Your task to perform on an android device: Open notification settings Image 0: 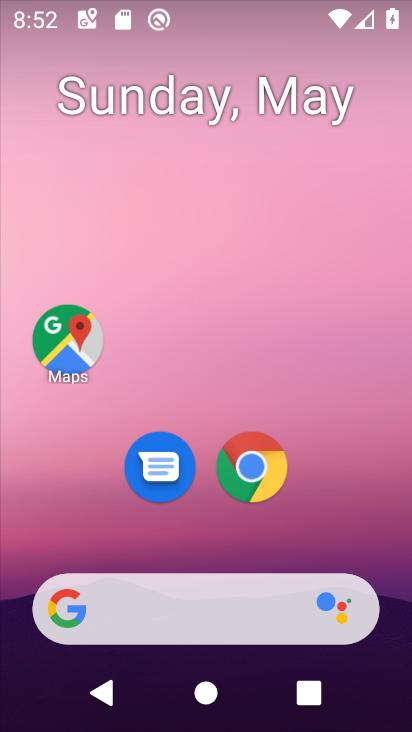
Step 0: drag from (345, 528) to (314, 117)
Your task to perform on an android device: Open notification settings Image 1: 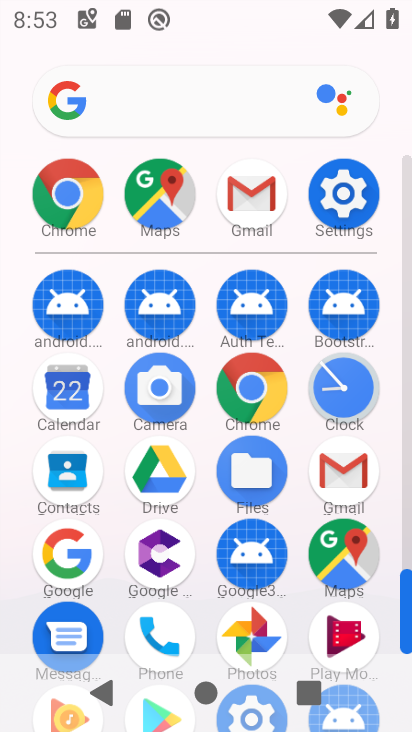
Step 1: click (335, 198)
Your task to perform on an android device: Open notification settings Image 2: 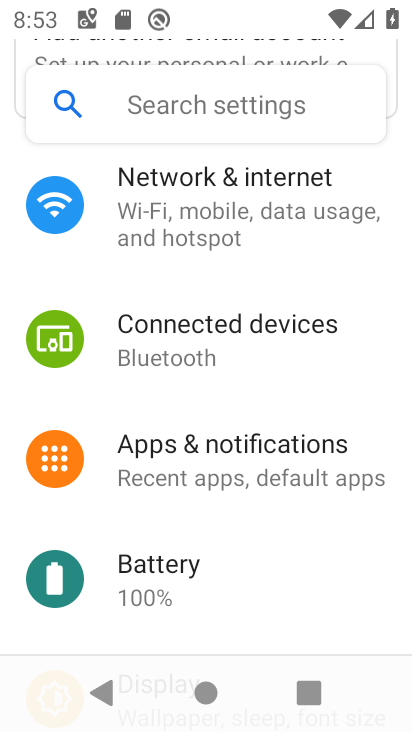
Step 2: click (280, 448)
Your task to perform on an android device: Open notification settings Image 3: 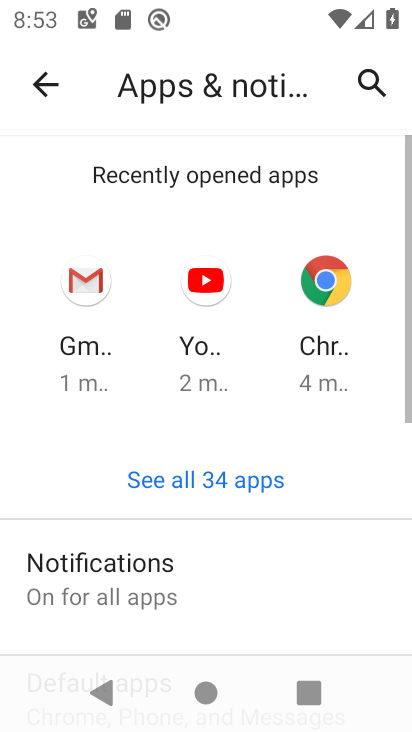
Step 3: click (150, 564)
Your task to perform on an android device: Open notification settings Image 4: 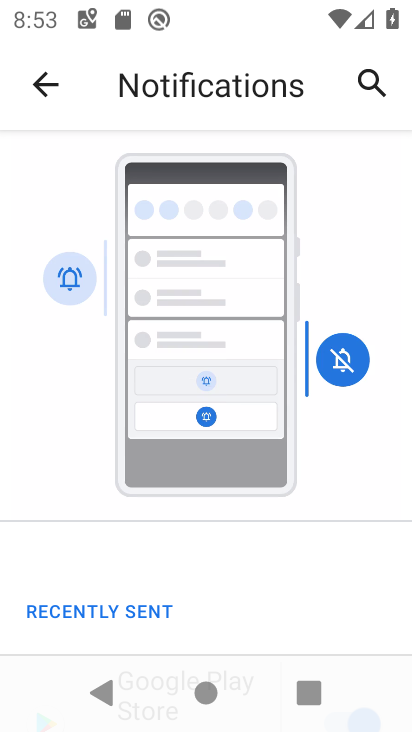
Step 4: drag from (256, 588) to (319, 200)
Your task to perform on an android device: Open notification settings Image 5: 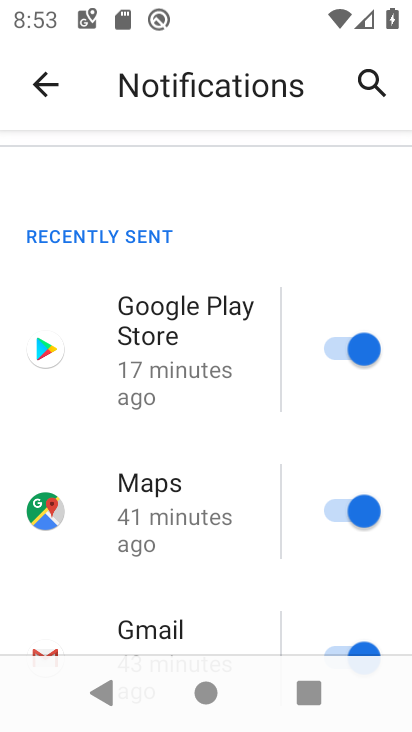
Step 5: drag from (235, 589) to (274, 228)
Your task to perform on an android device: Open notification settings Image 6: 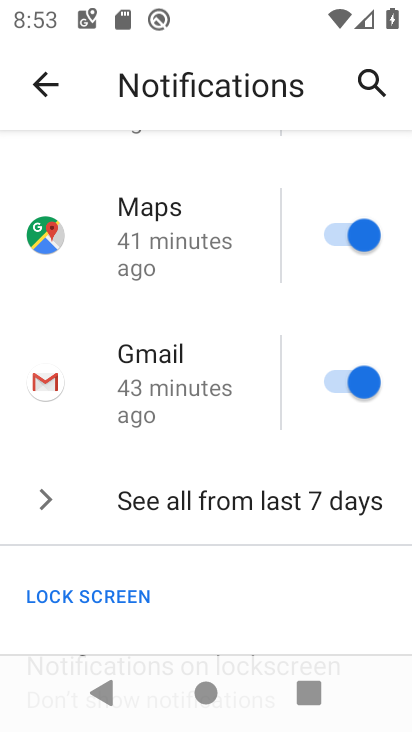
Step 6: drag from (256, 618) to (233, 373)
Your task to perform on an android device: Open notification settings Image 7: 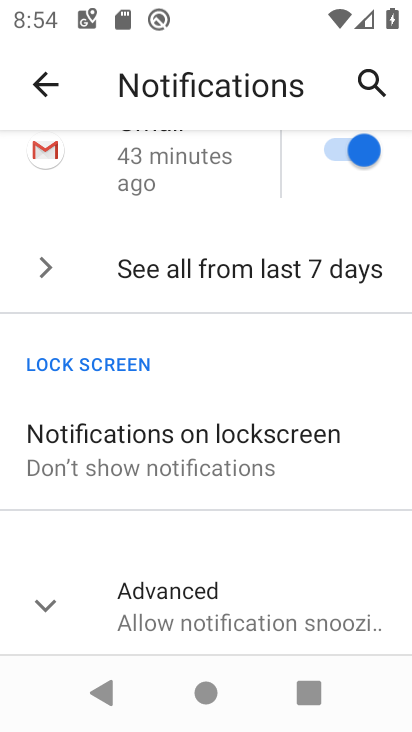
Step 7: click (151, 456)
Your task to perform on an android device: Open notification settings Image 8: 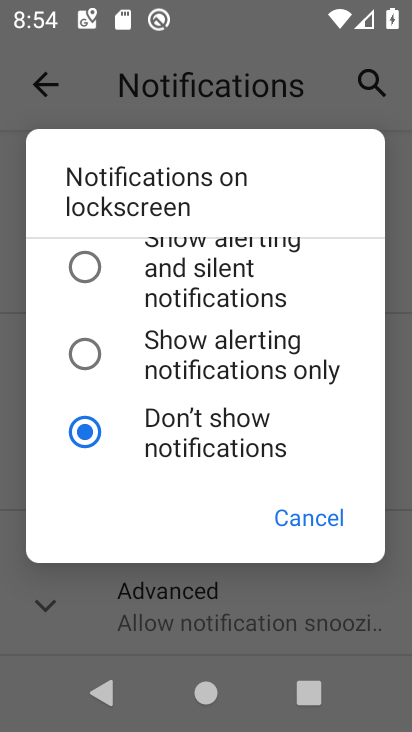
Step 8: click (312, 516)
Your task to perform on an android device: Open notification settings Image 9: 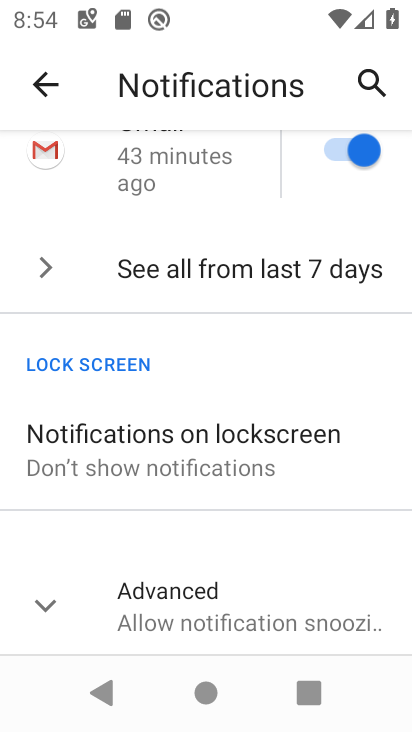
Step 9: task complete